Your task to perform on an android device: Open the map Image 0: 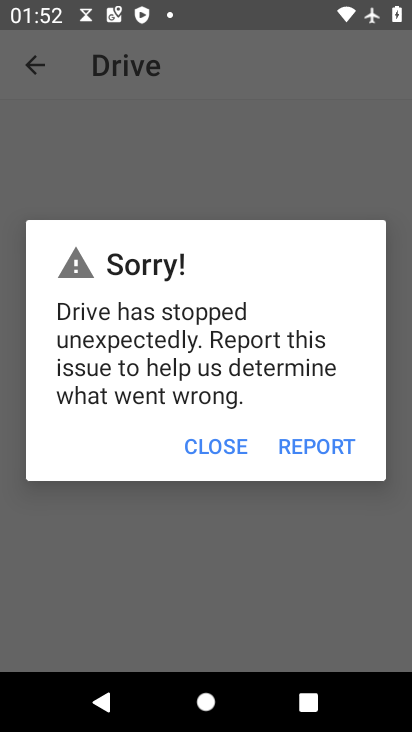
Step 0: press home button
Your task to perform on an android device: Open the map Image 1: 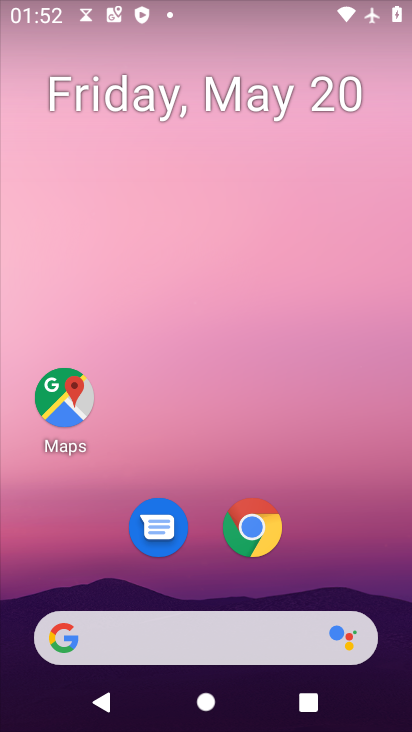
Step 1: click (64, 402)
Your task to perform on an android device: Open the map Image 2: 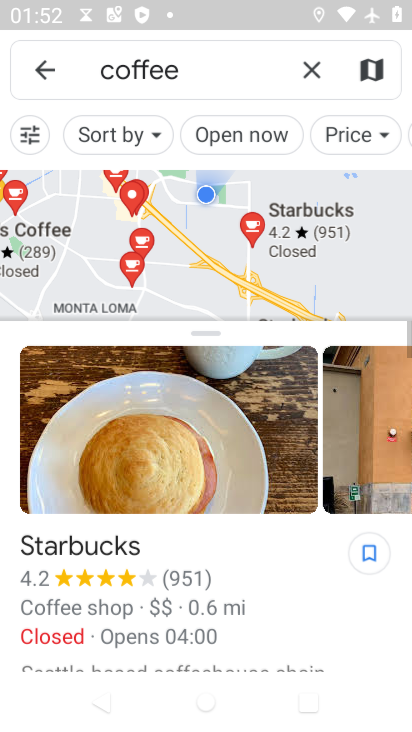
Step 2: click (50, 72)
Your task to perform on an android device: Open the map Image 3: 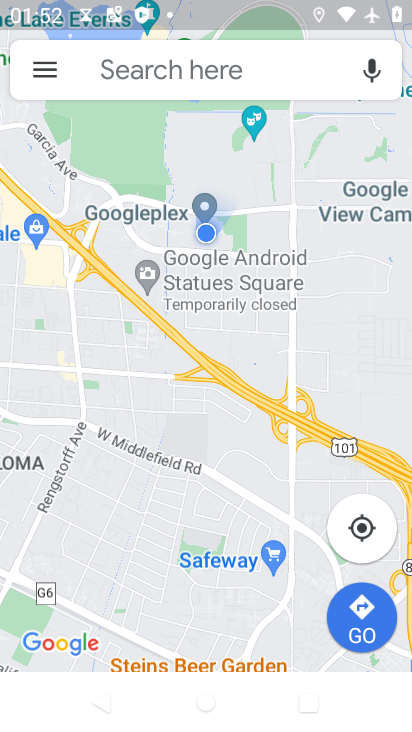
Step 3: task complete